Your task to perform on an android device: Go to Yahoo.com Image 0: 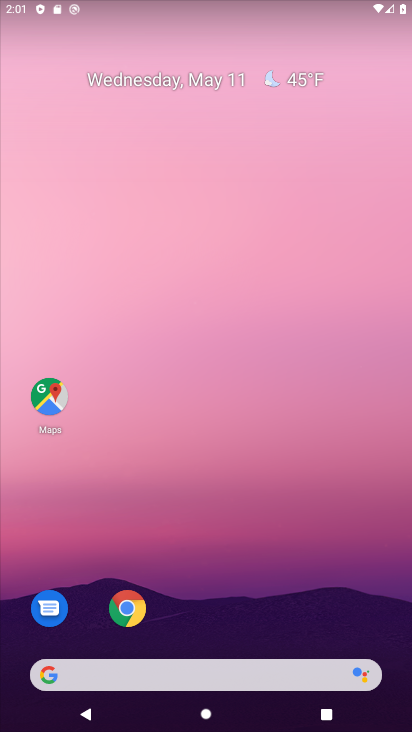
Step 0: click (133, 622)
Your task to perform on an android device: Go to Yahoo.com Image 1: 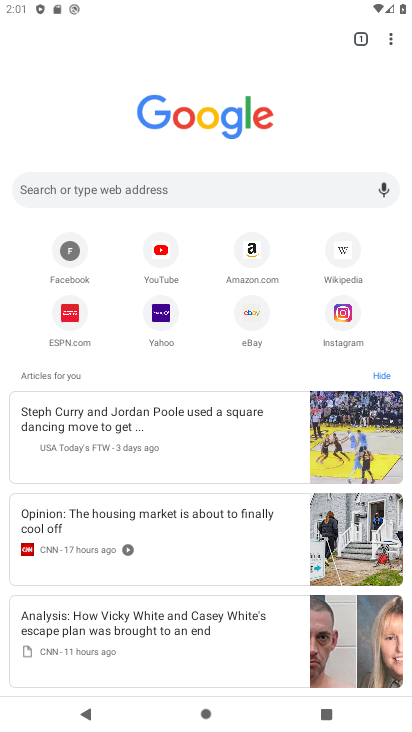
Step 1: click (190, 194)
Your task to perform on an android device: Go to Yahoo.com Image 2: 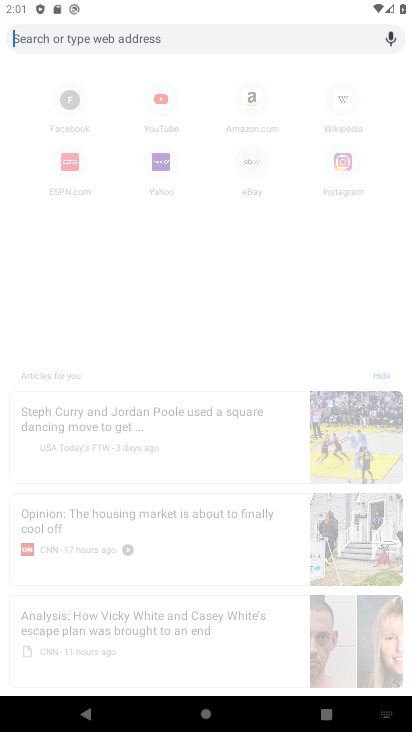
Step 2: type "yahoo.com"
Your task to perform on an android device: Go to Yahoo.com Image 3: 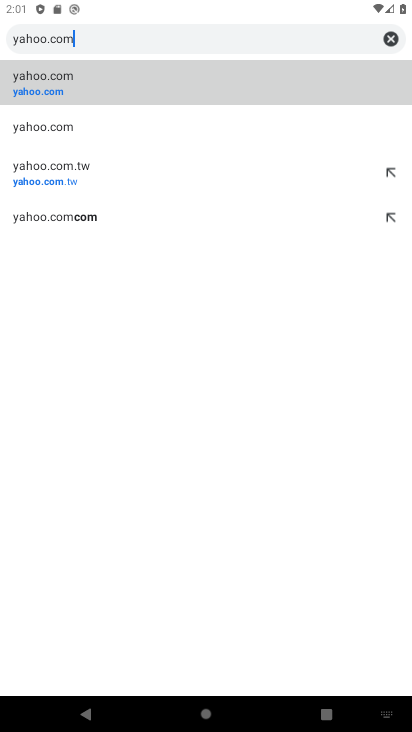
Step 3: click (63, 98)
Your task to perform on an android device: Go to Yahoo.com Image 4: 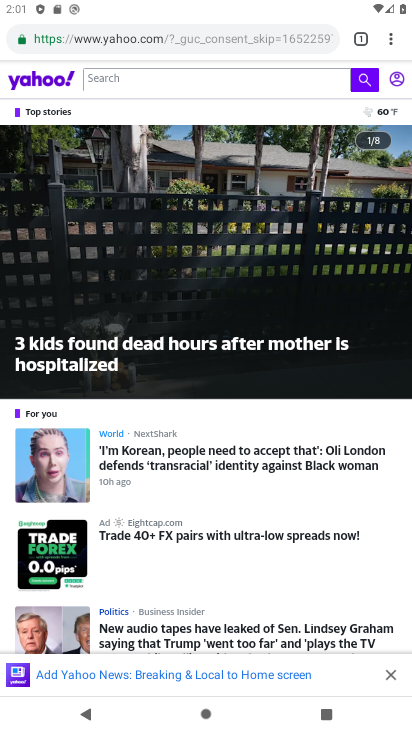
Step 4: task complete